Your task to perform on an android device: Go to battery settings Image 0: 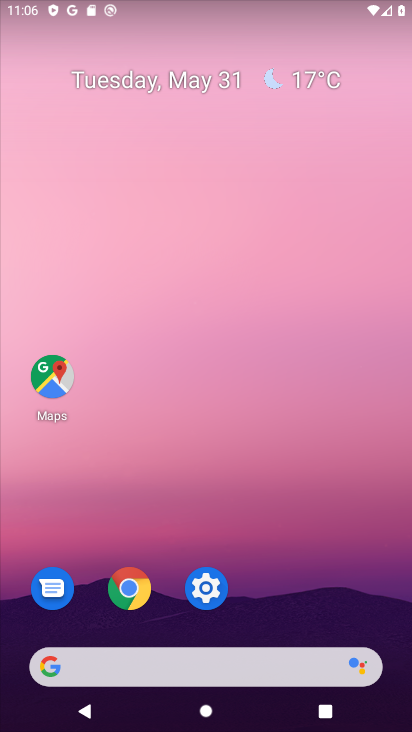
Step 0: press home button
Your task to perform on an android device: Go to battery settings Image 1: 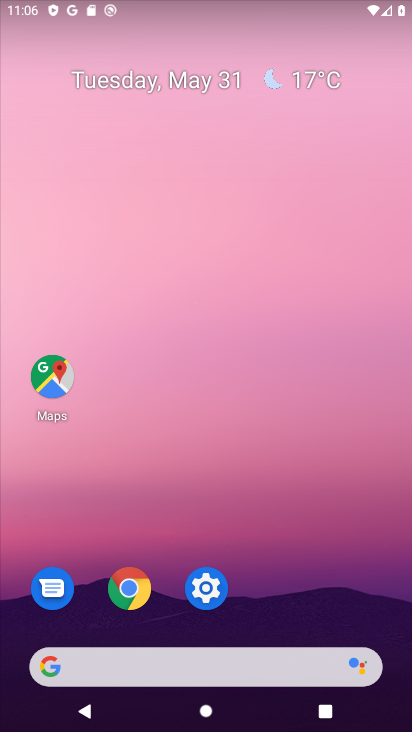
Step 1: drag from (270, 684) to (206, 364)
Your task to perform on an android device: Go to battery settings Image 2: 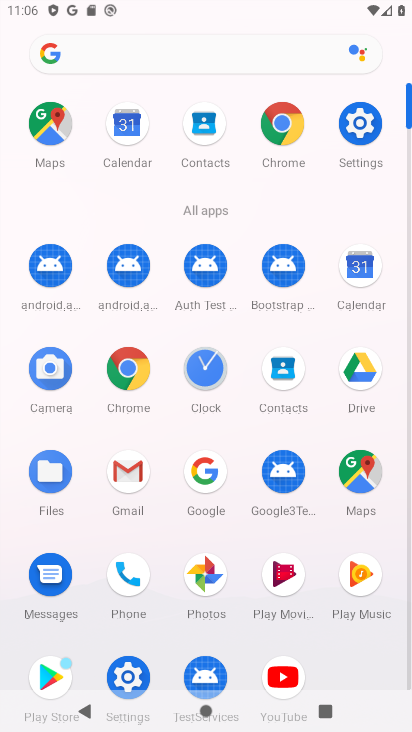
Step 2: click (364, 127)
Your task to perform on an android device: Go to battery settings Image 3: 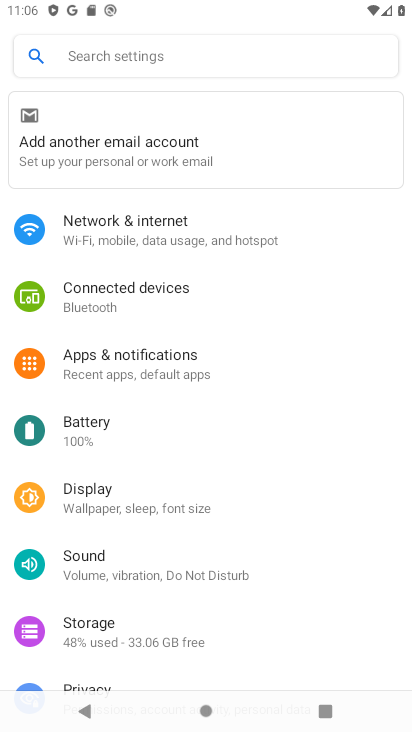
Step 3: click (100, 430)
Your task to perform on an android device: Go to battery settings Image 4: 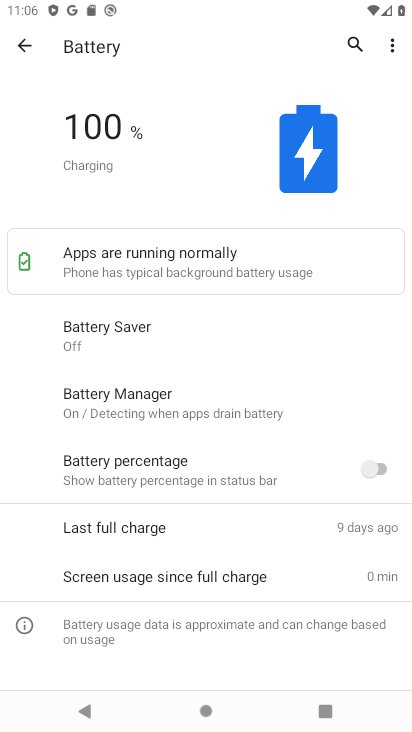
Step 4: task complete